Your task to perform on an android device: all mails in gmail Image 0: 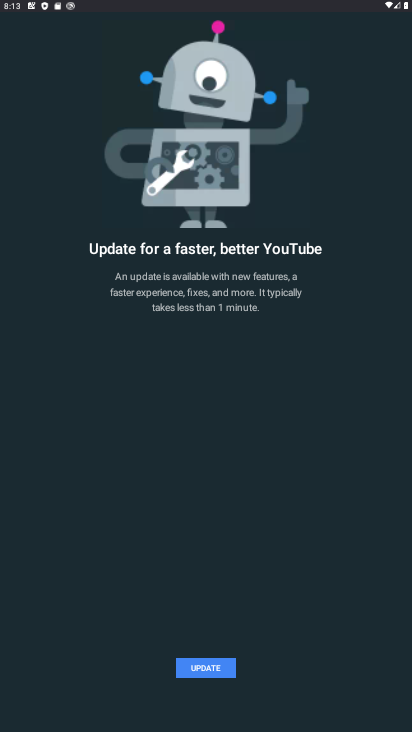
Step 0: press back button
Your task to perform on an android device: all mails in gmail Image 1: 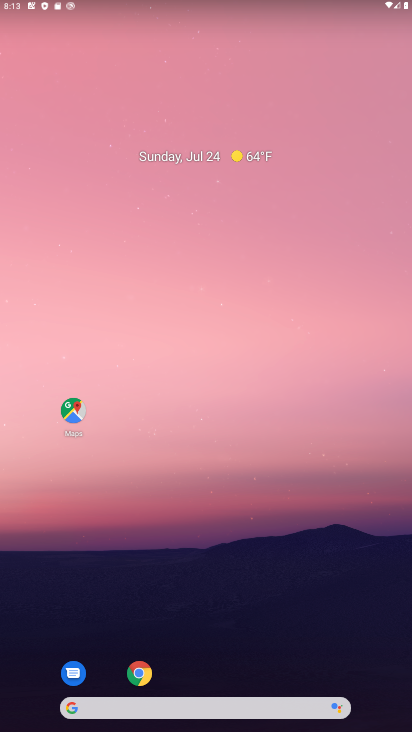
Step 1: drag from (335, 669) to (292, 255)
Your task to perform on an android device: all mails in gmail Image 2: 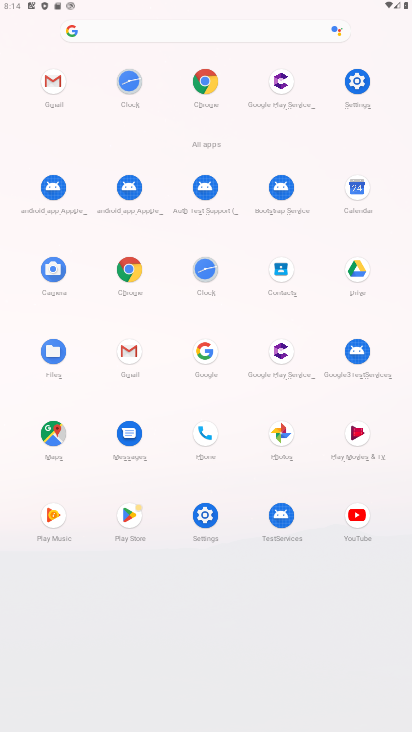
Step 2: click (121, 344)
Your task to perform on an android device: all mails in gmail Image 3: 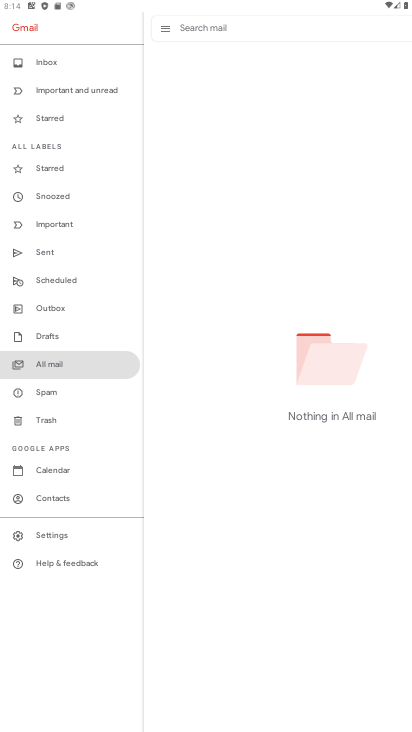
Step 3: click (224, 351)
Your task to perform on an android device: all mails in gmail Image 4: 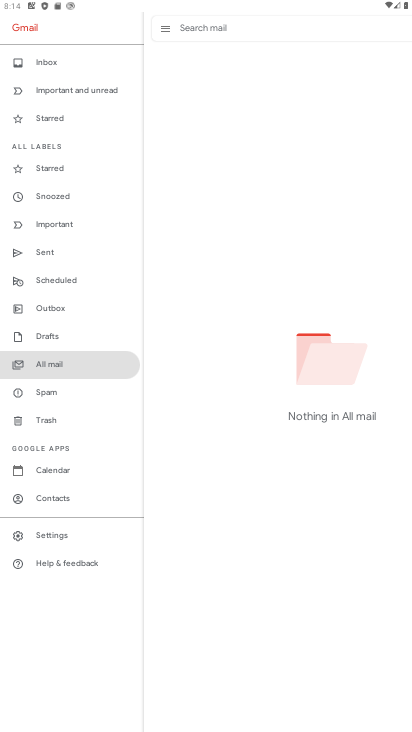
Step 4: task complete